Your task to perform on an android device: Go to Wikipedia Image 0: 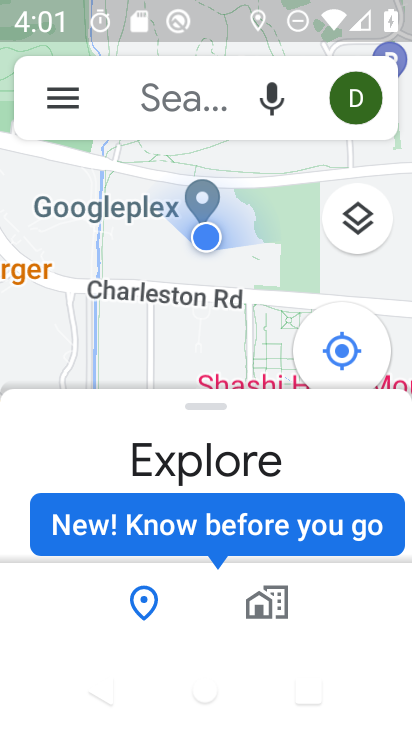
Step 0: press home button
Your task to perform on an android device: Go to Wikipedia Image 1: 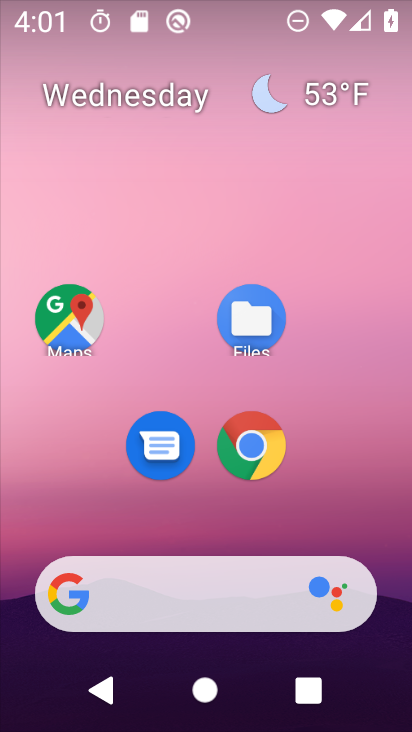
Step 1: click (255, 435)
Your task to perform on an android device: Go to Wikipedia Image 2: 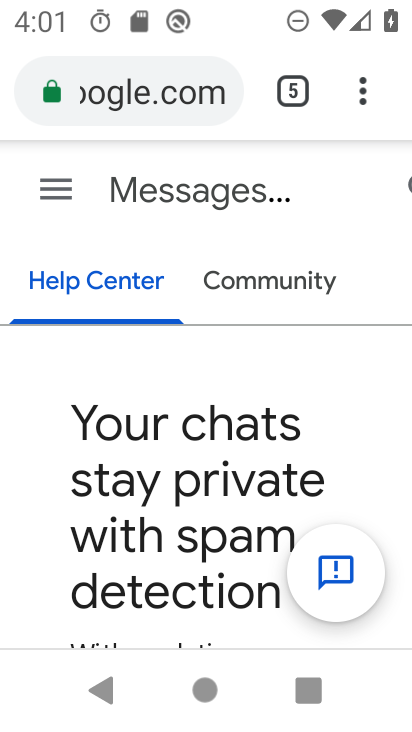
Step 2: click (302, 87)
Your task to perform on an android device: Go to Wikipedia Image 3: 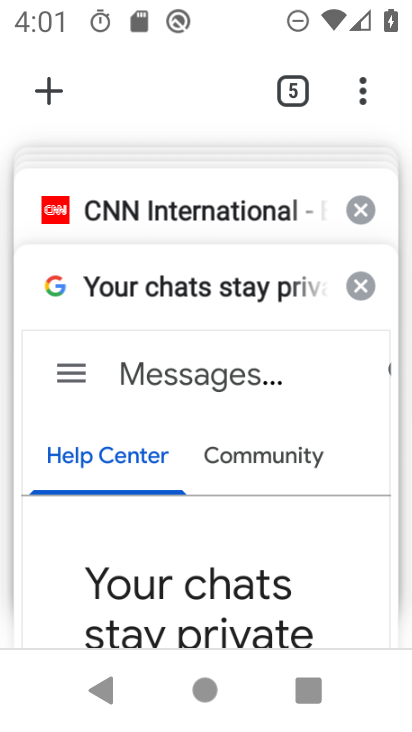
Step 3: drag from (261, 210) to (239, 525)
Your task to perform on an android device: Go to Wikipedia Image 4: 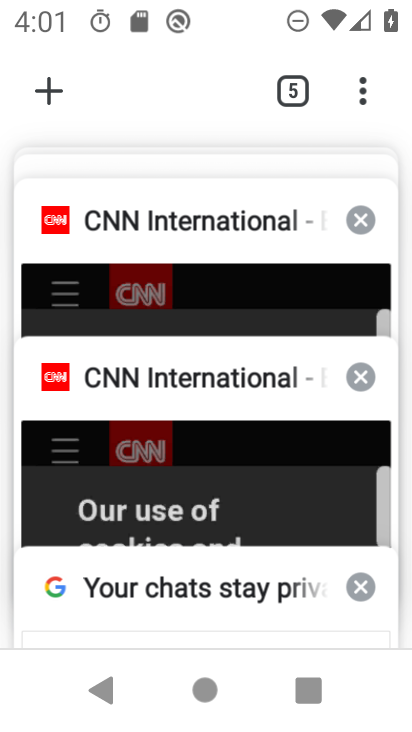
Step 4: drag from (251, 214) to (248, 519)
Your task to perform on an android device: Go to Wikipedia Image 5: 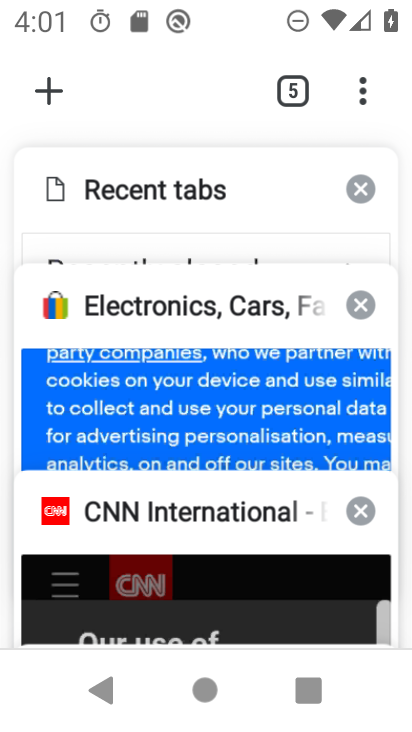
Step 5: drag from (316, 173) to (236, 681)
Your task to perform on an android device: Go to Wikipedia Image 6: 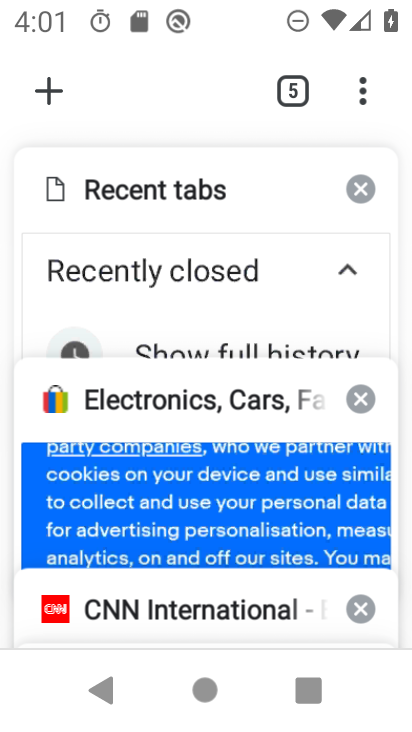
Step 6: click (66, 86)
Your task to perform on an android device: Go to Wikipedia Image 7: 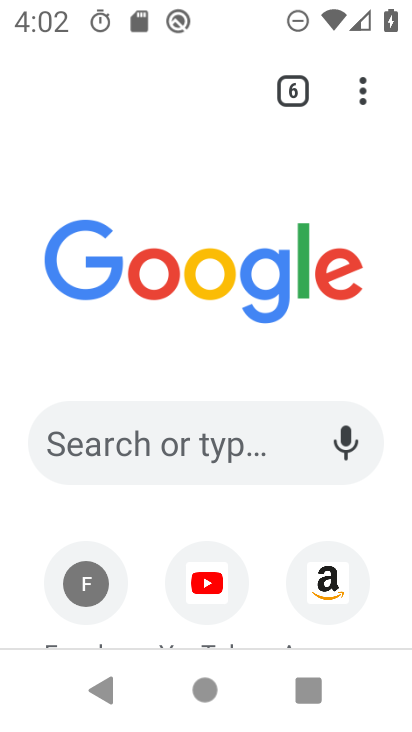
Step 7: drag from (225, 546) to (269, 162)
Your task to perform on an android device: Go to Wikipedia Image 8: 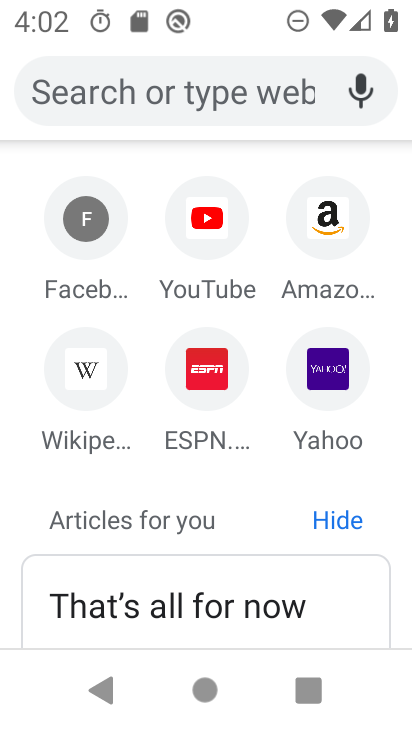
Step 8: click (76, 410)
Your task to perform on an android device: Go to Wikipedia Image 9: 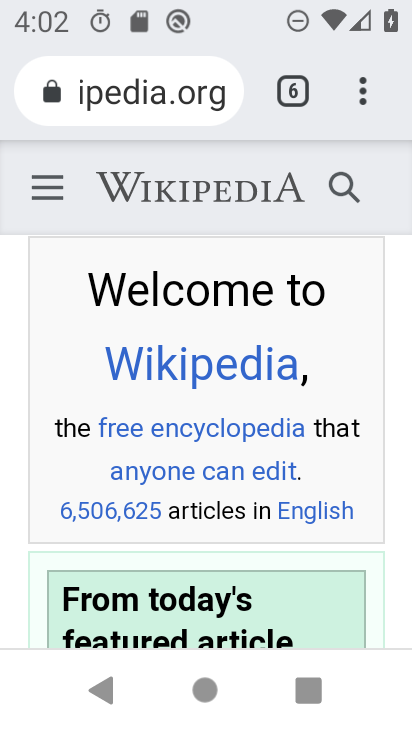
Step 9: task complete